Your task to perform on an android device: Check the weather Image 0: 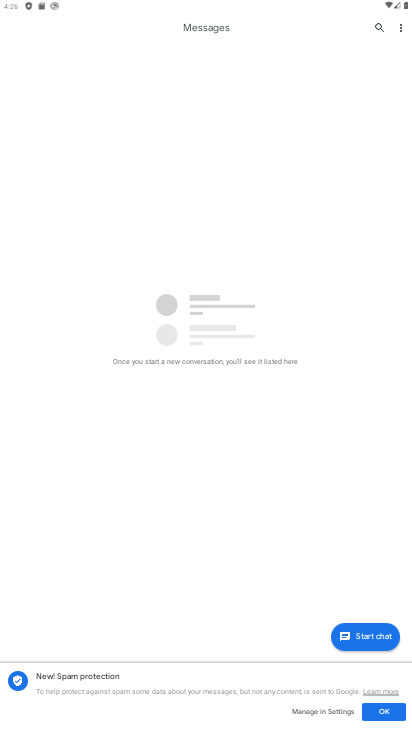
Step 0: press home button
Your task to perform on an android device: Check the weather Image 1: 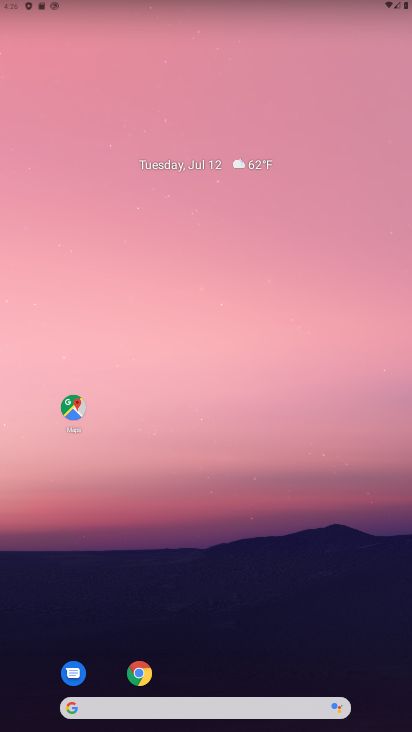
Step 1: click (239, 158)
Your task to perform on an android device: Check the weather Image 2: 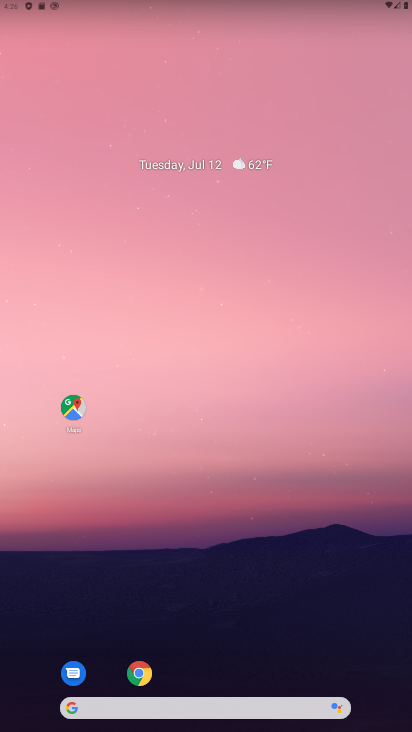
Step 2: click (235, 163)
Your task to perform on an android device: Check the weather Image 3: 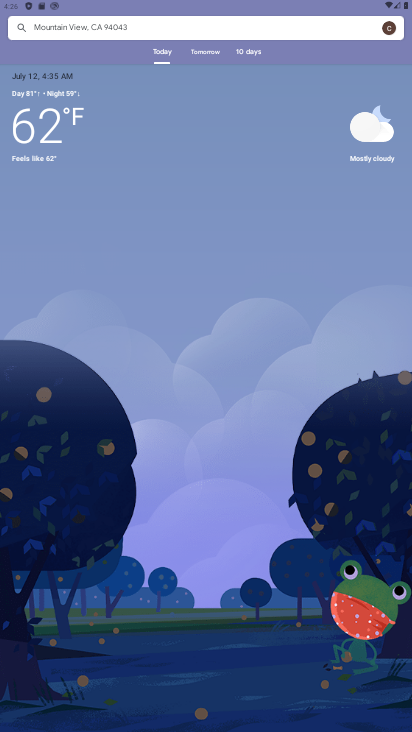
Step 3: task complete